Your task to perform on an android device: toggle sleep mode Image 0: 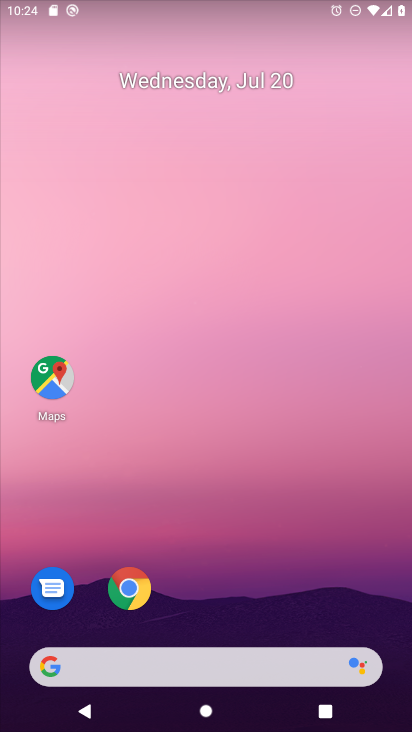
Step 0: drag from (199, 586) to (152, 163)
Your task to perform on an android device: toggle sleep mode Image 1: 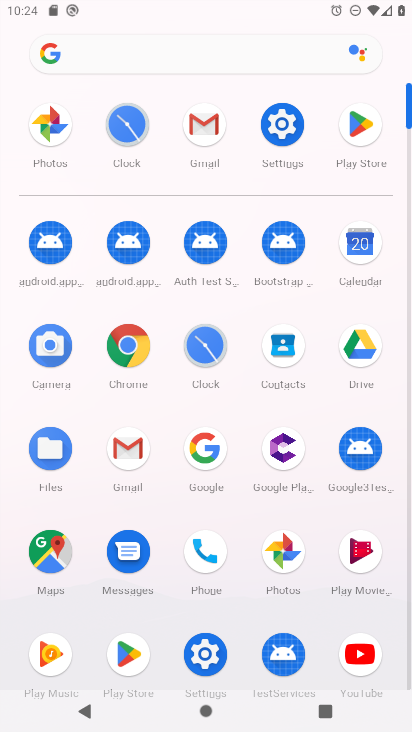
Step 1: click (280, 131)
Your task to perform on an android device: toggle sleep mode Image 2: 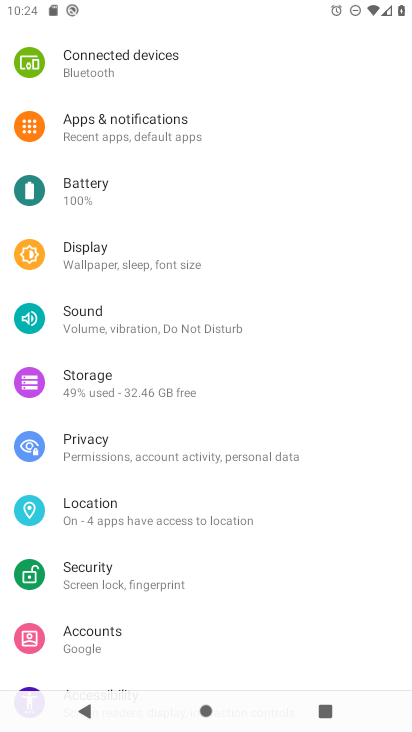
Step 2: task complete